Your task to perform on an android device: remove spam from my inbox in the gmail app Image 0: 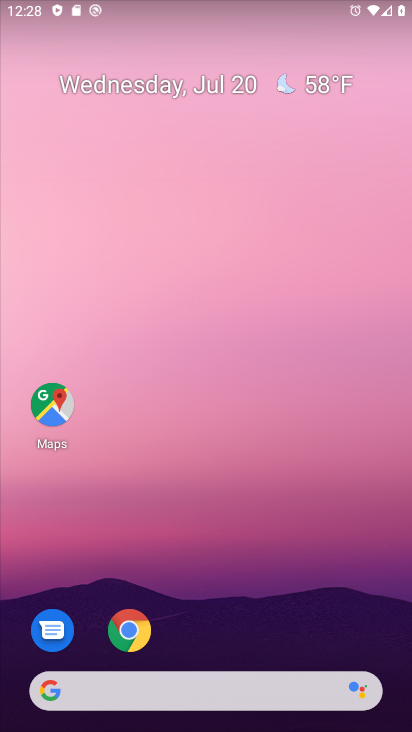
Step 0: press home button
Your task to perform on an android device: remove spam from my inbox in the gmail app Image 1: 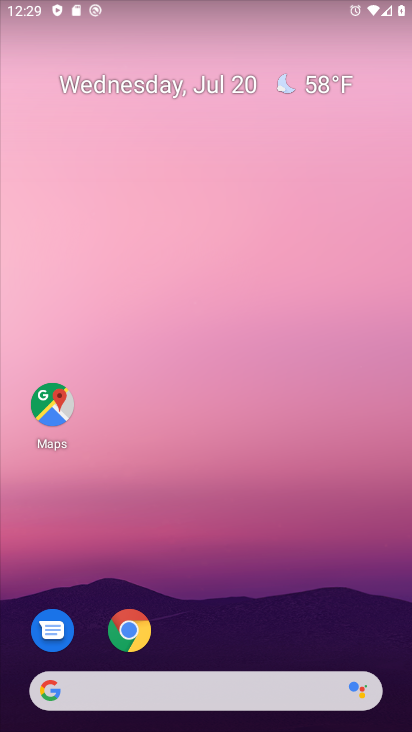
Step 1: drag from (180, 687) to (266, 209)
Your task to perform on an android device: remove spam from my inbox in the gmail app Image 2: 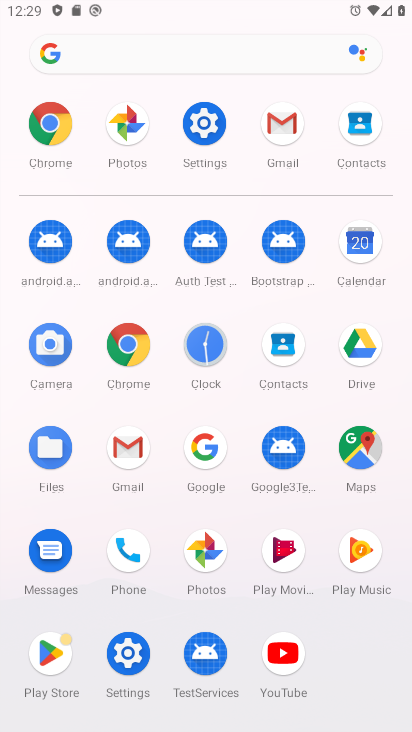
Step 2: click (280, 129)
Your task to perform on an android device: remove spam from my inbox in the gmail app Image 3: 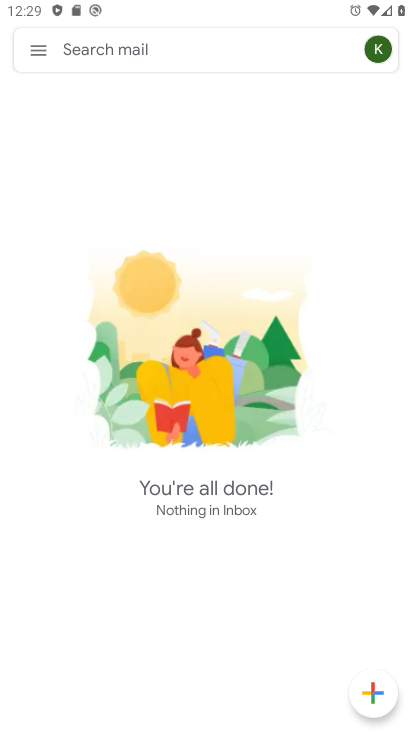
Step 3: click (33, 53)
Your task to perform on an android device: remove spam from my inbox in the gmail app Image 4: 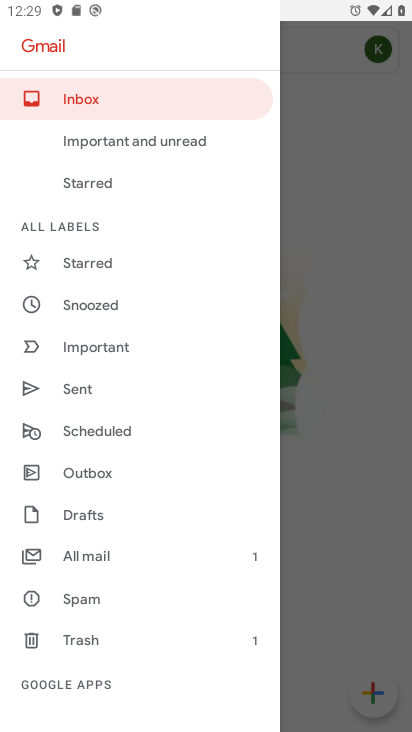
Step 4: click (82, 595)
Your task to perform on an android device: remove spam from my inbox in the gmail app Image 5: 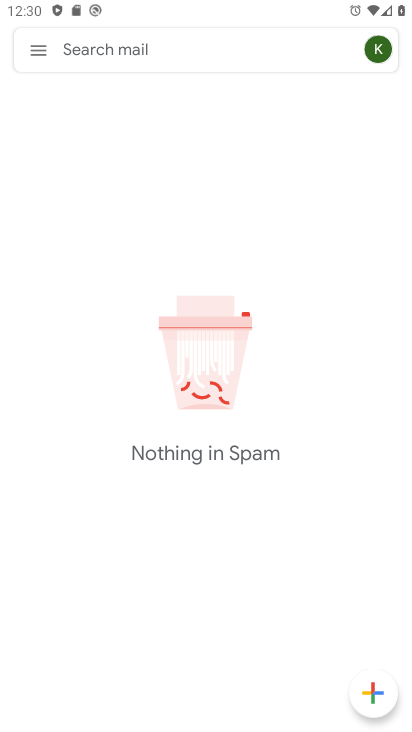
Step 5: task complete